Your task to perform on an android device: choose inbox layout in the gmail app Image 0: 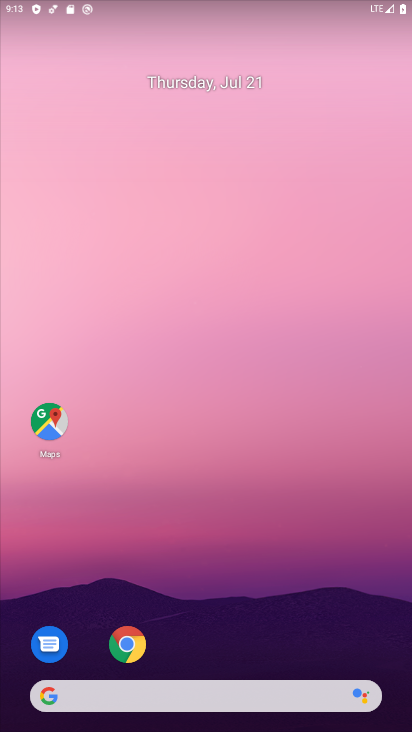
Step 0: press home button
Your task to perform on an android device: choose inbox layout in the gmail app Image 1: 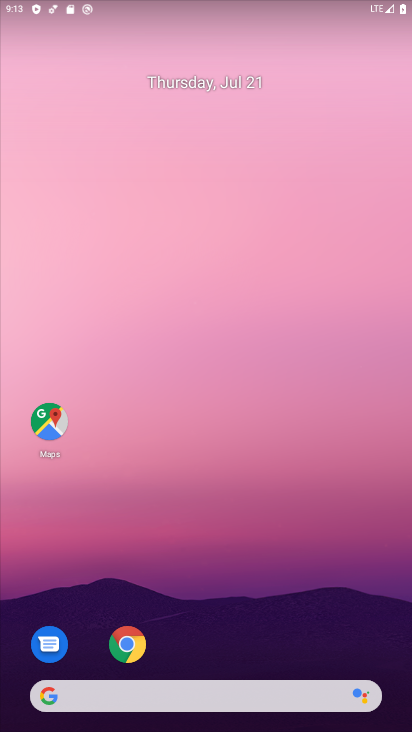
Step 1: drag from (203, 629) to (210, 60)
Your task to perform on an android device: choose inbox layout in the gmail app Image 2: 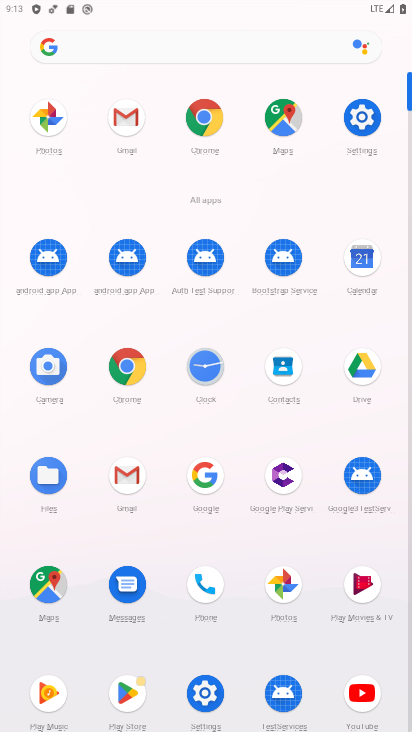
Step 2: click (126, 475)
Your task to perform on an android device: choose inbox layout in the gmail app Image 3: 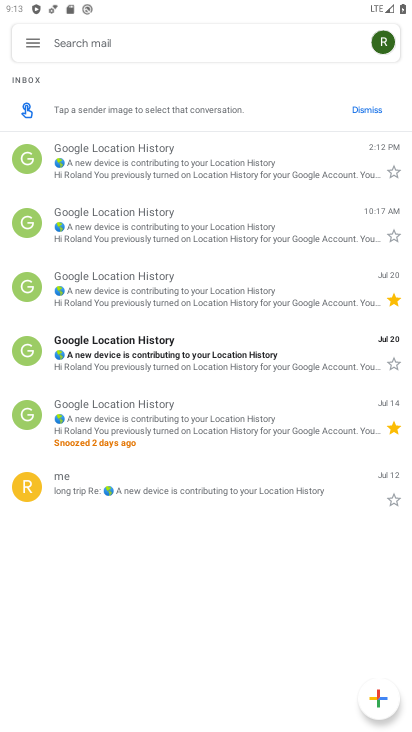
Step 3: click (37, 48)
Your task to perform on an android device: choose inbox layout in the gmail app Image 4: 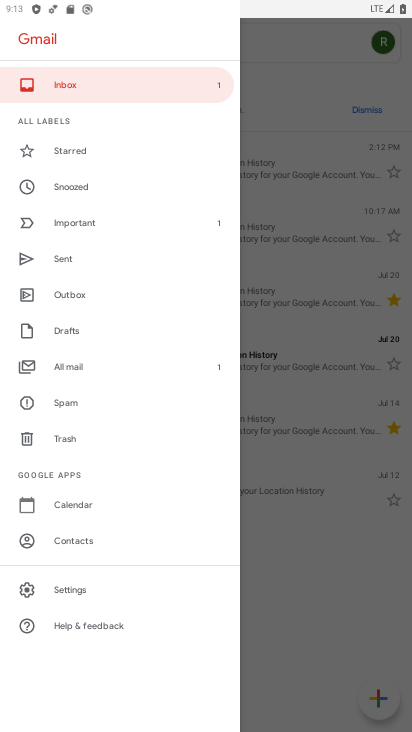
Step 4: click (110, 587)
Your task to perform on an android device: choose inbox layout in the gmail app Image 5: 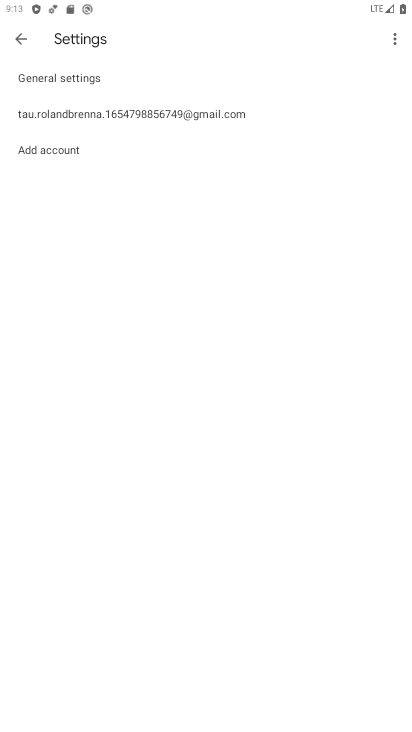
Step 5: click (67, 118)
Your task to perform on an android device: choose inbox layout in the gmail app Image 6: 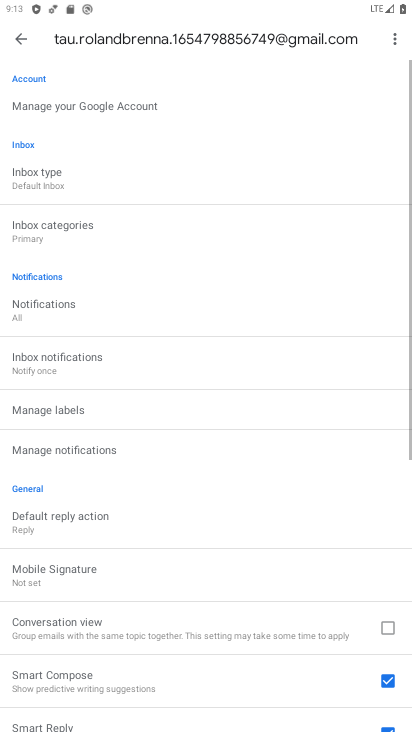
Step 6: click (45, 185)
Your task to perform on an android device: choose inbox layout in the gmail app Image 7: 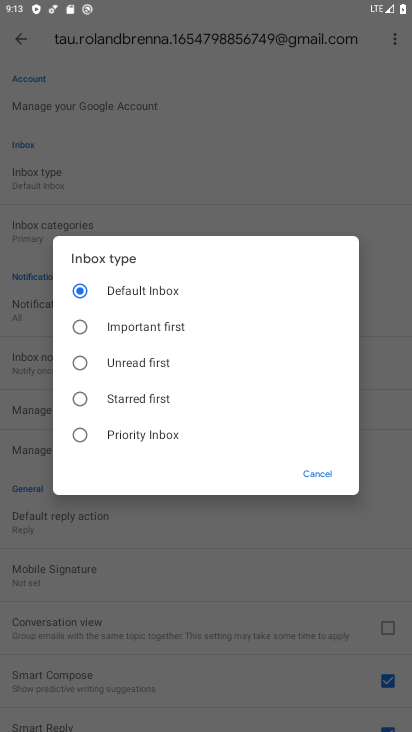
Step 7: click (73, 387)
Your task to perform on an android device: choose inbox layout in the gmail app Image 8: 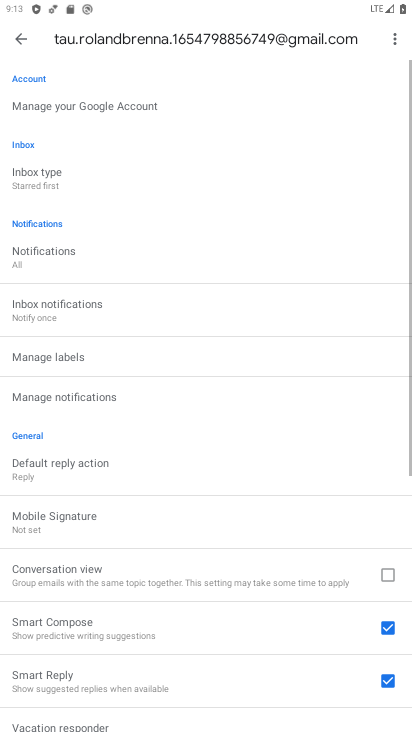
Step 8: task complete